Your task to perform on an android device: turn off location Image 0: 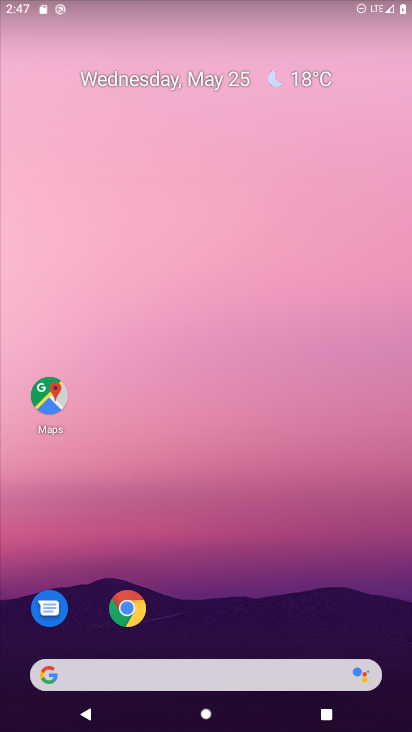
Step 0: drag from (374, 628) to (276, 126)
Your task to perform on an android device: turn off location Image 1: 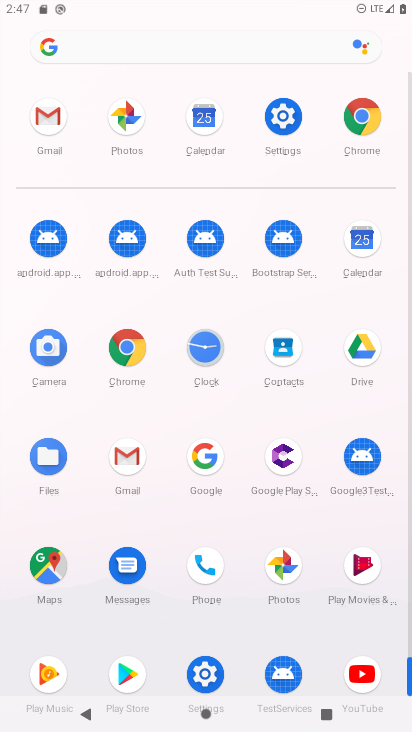
Step 1: click (202, 676)
Your task to perform on an android device: turn off location Image 2: 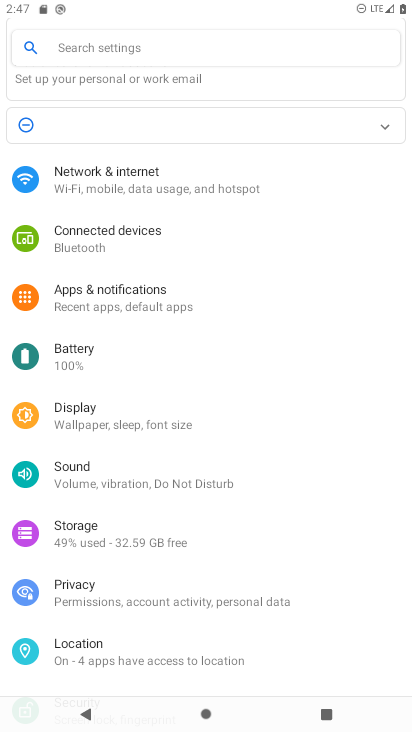
Step 2: click (85, 644)
Your task to perform on an android device: turn off location Image 3: 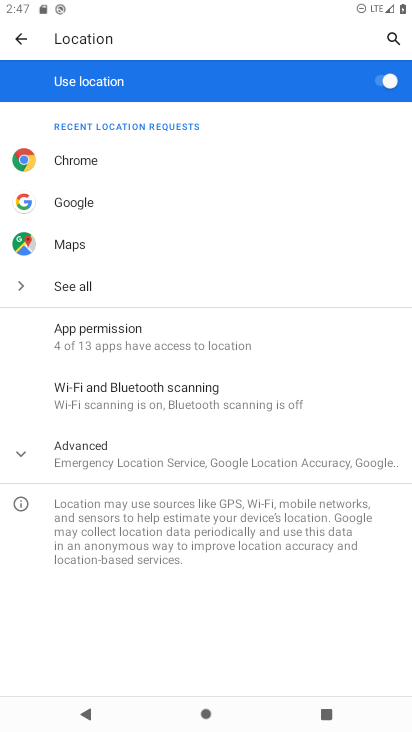
Step 3: click (378, 80)
Your task to perform on an android device: turn off location Image 4: 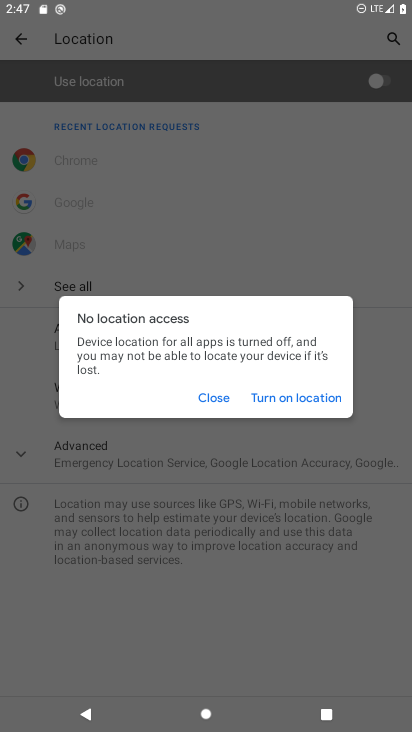
Step 4: click (210, 397)
Your task to perform on an android device: turn off location Image 5: 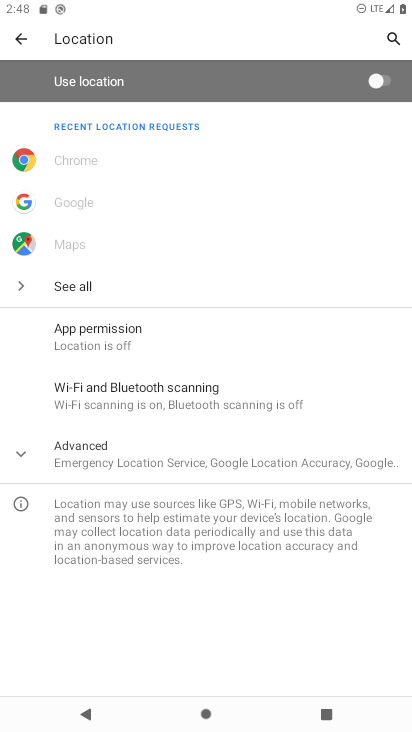
Step 5: task complete